Your task to perform on an android device: What is the recent news? Image 0: 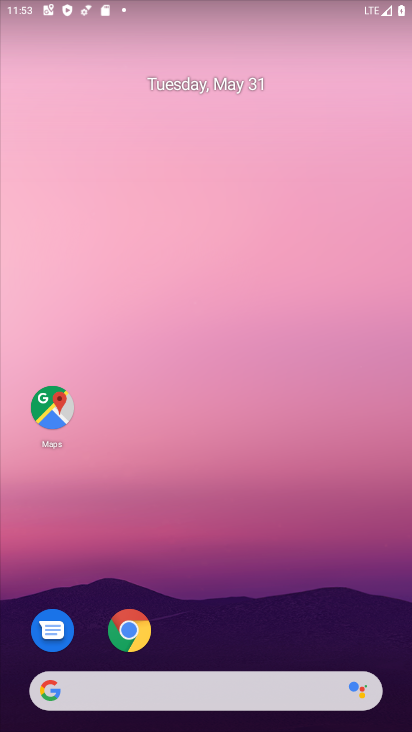
Step 0: click (186, 694)
Your task to perform on an android device: What is the recent news? Image 1: 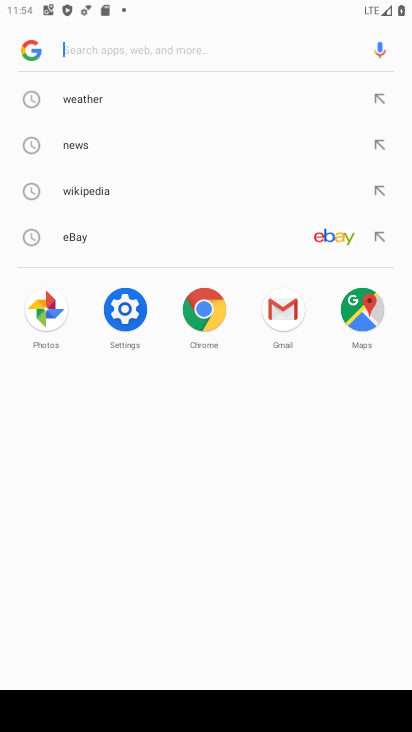
Step 1: type "recent news?"
Your task to perform on an android device: What is the recent news? Image 2: 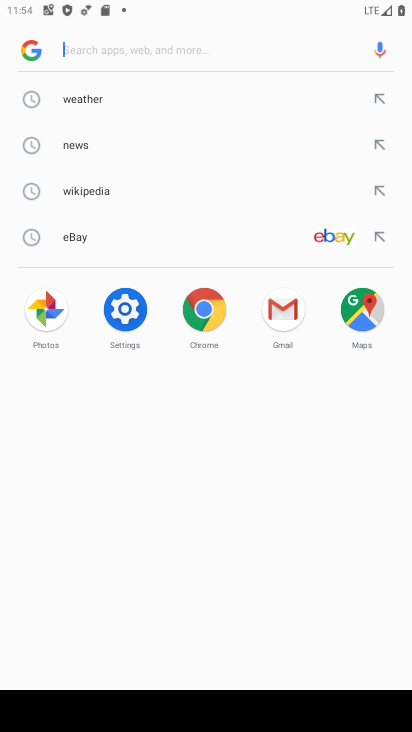
Step 2: click (131, 47)
Your task to perform on an android device: What is the recent news? Image 3: 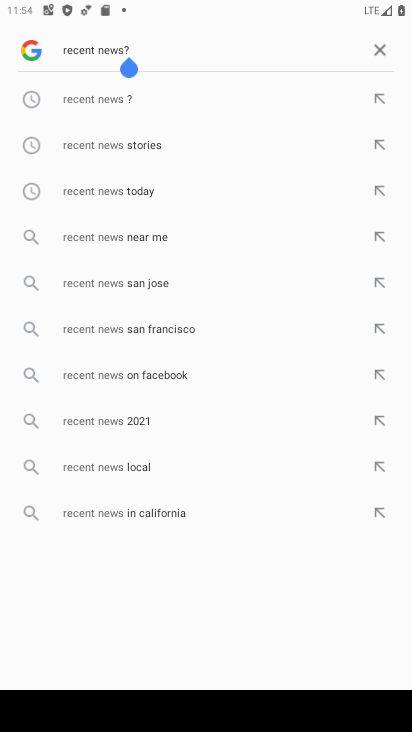
Step 3: click (109, 98)
Your task to perform on an android device: What is the recent news? Image 4: 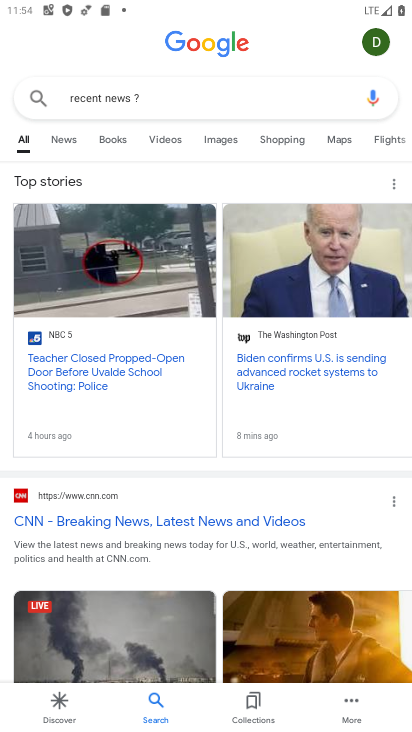
Step 4: task complete